Your task to perform on an android device: turn on airplane mode Image 0: 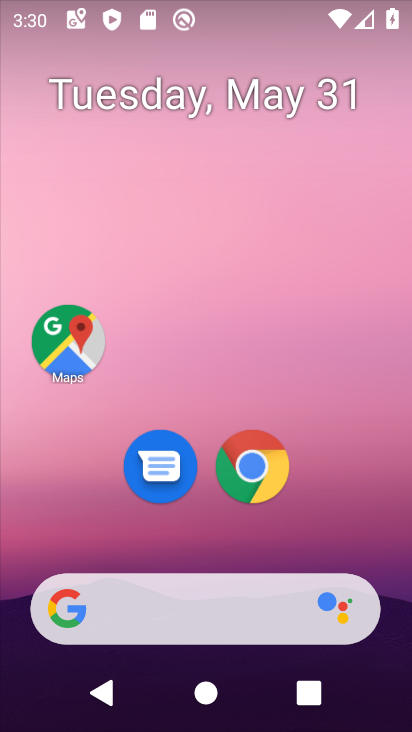
Step 0: drag from (381, 49) to (281, 417)
Your task to perform on an android device: turn on airplane mode Image 1: 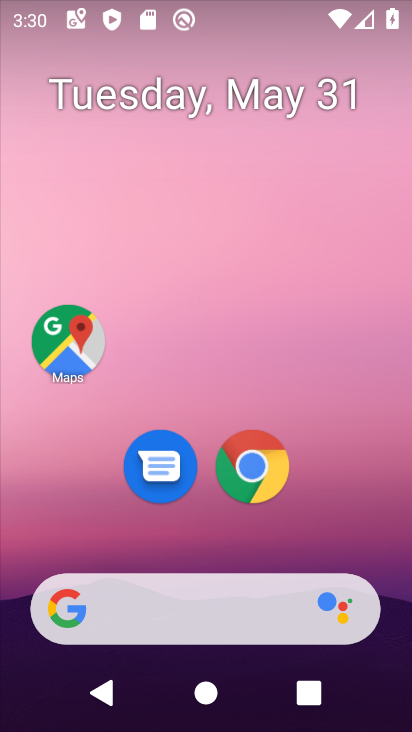
Step 1: drag from (339, 13) to (244, 444)
Your task to perform on an android device: turn on airplane mode Image 2: 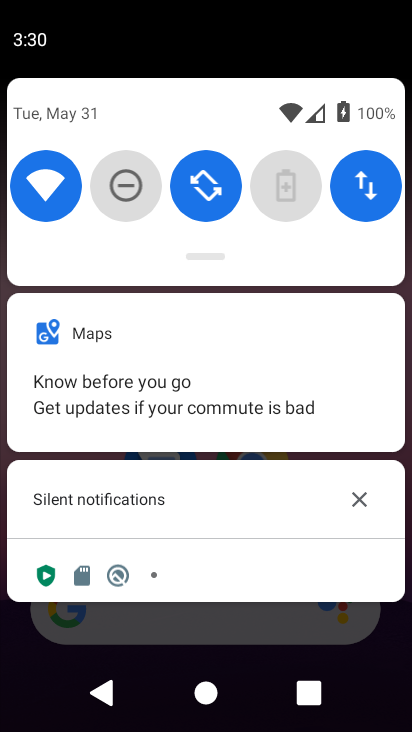
Step 2: drag from (207, 250) to (174, 628)
Your task to perform on an android device: turn on airplane mode Image 3: 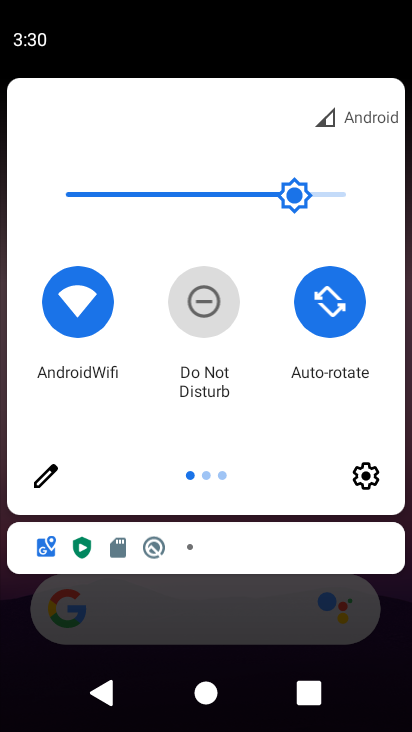
Step 3: drag from (362, 304) to (16, 249)
Your task to perform on an android device: turn on airplane mode Image 4: 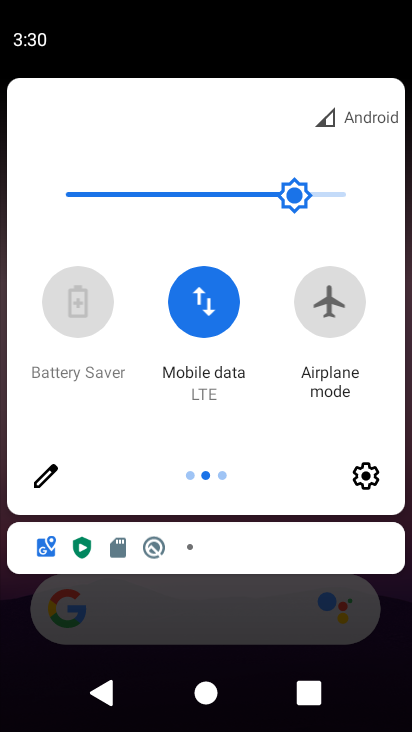
Step 4: click (326, 314)
Your task to perform on an android device: turn on airplane mode Image 5: 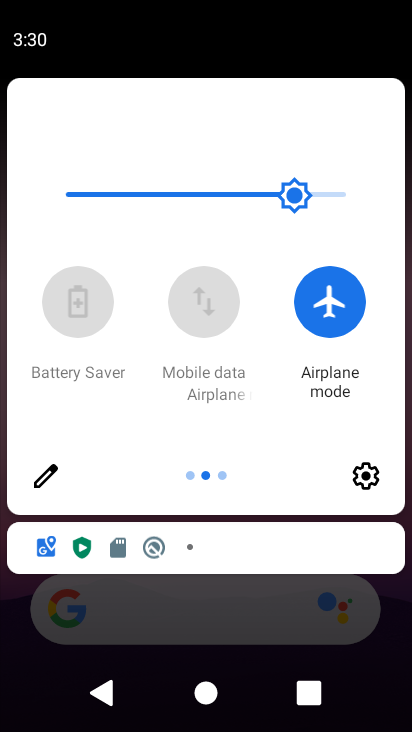
Step 5: task complete